Your task to perform on an android device: What's the weather? Image 0: 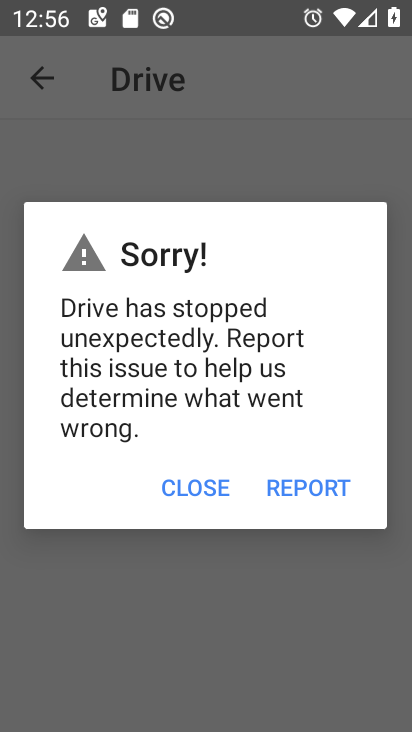
Step 0: press home button
Your task to perform on an android device: What's the weather? Image 1: 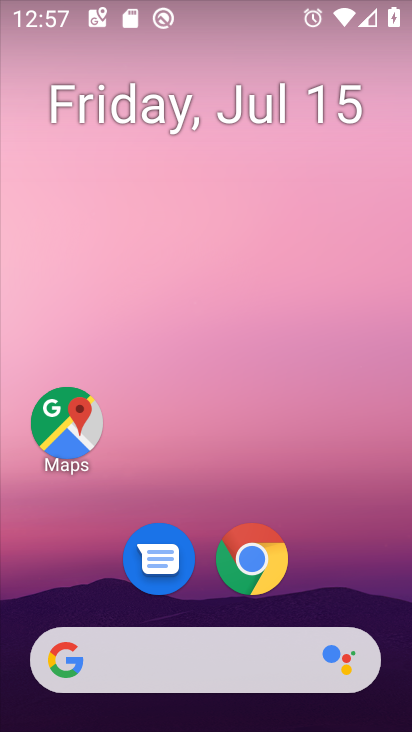
Step 1: click (255, 645)
Your task to perform on an android device: What's the weather? Image 2: 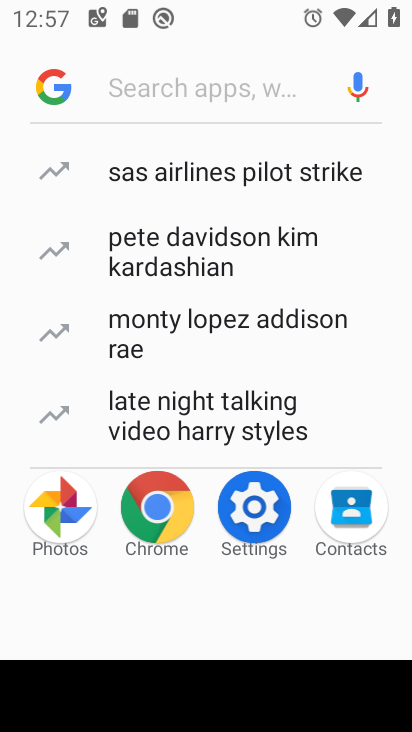
Step 2: type "weather"
Your task to perform on an android device: What's the weather? Image 3: 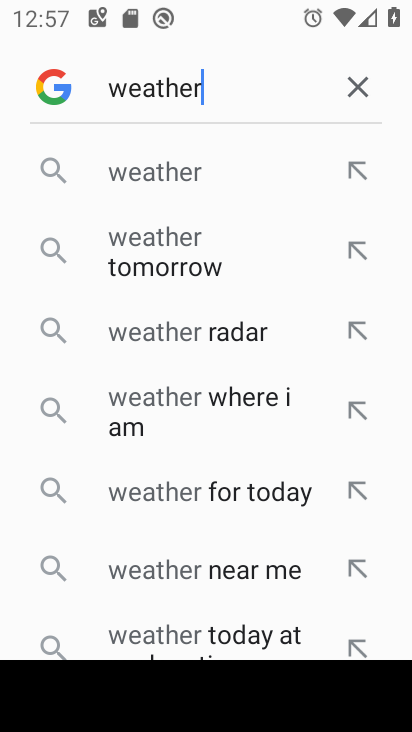
Step 3: click (199, 161)
Your task to perform on an android device: What's the weather? Image 4: 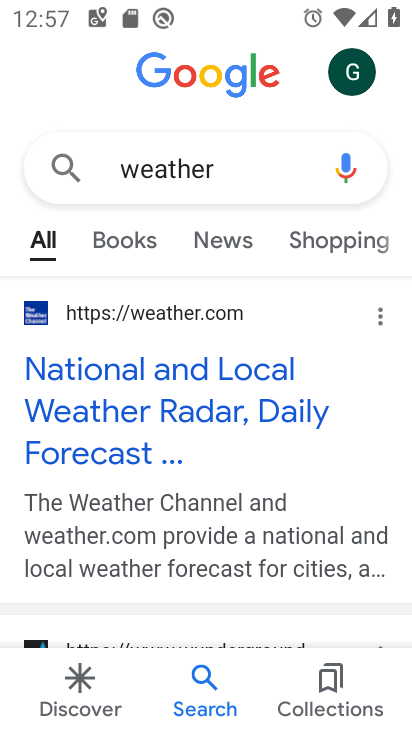
Step 4: task complete